Your task to perform on an android device: What is the recent news? Image 0: 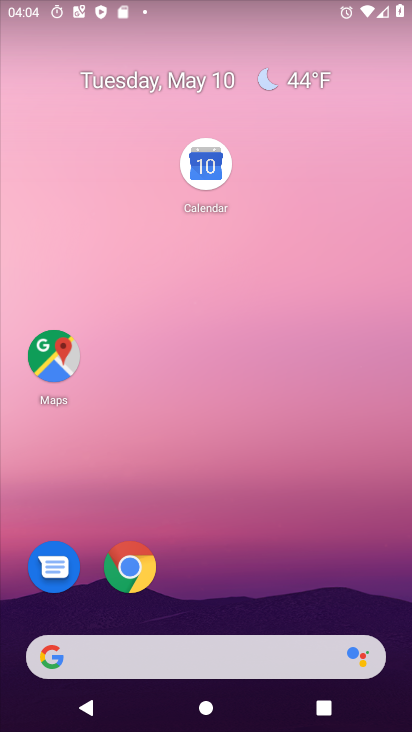
Step 0: drag from (254, 574) to (231, 55)
Your task to perform on an android device: What is the recent news? Image 1: 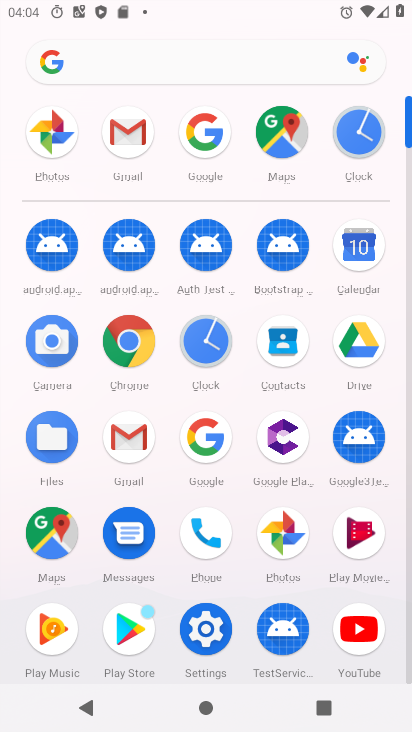
Step 1: click (204, 438)
Your task to perform on an android device: What is the recent news? Image 2: 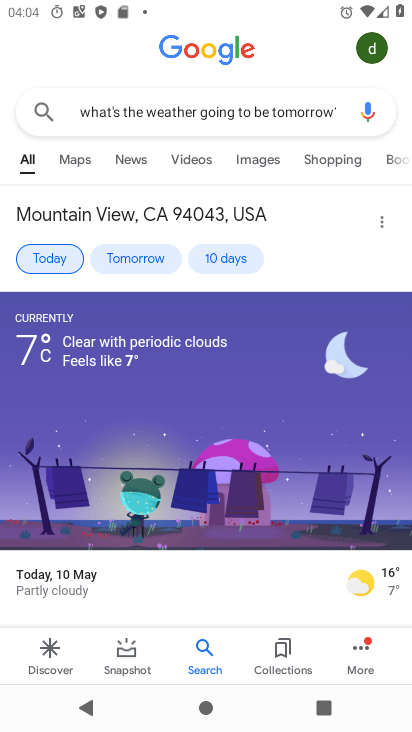
Step 2: click (286, 109)
Your task to perform on an android device: What is the recent news? Image 3: 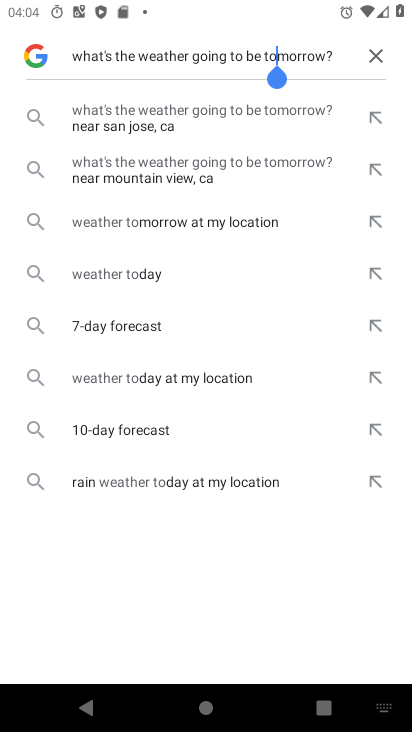
Step 3: click (379, 50)
Your task to perform on an android device: What is the recent news? Image 4: 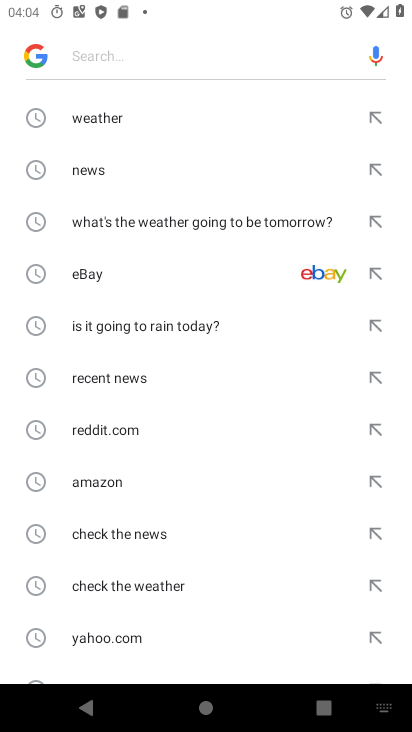
Step 4: click (109, 179)
Your task to perform on an android device: What is the recent news? Image 5: 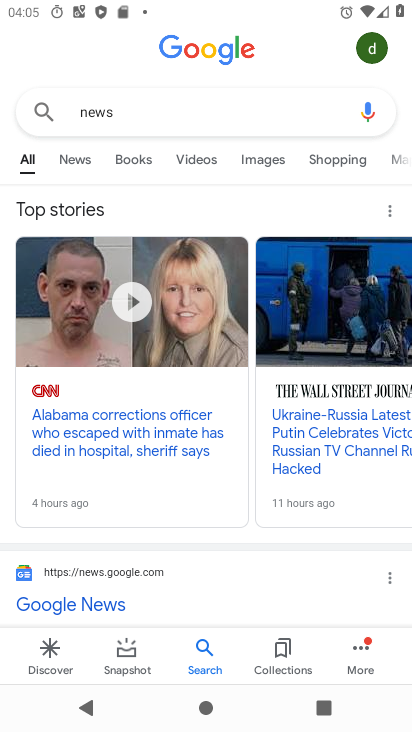
Step 5: task complete